Your task to perform on an android device: turn off notifications settings in the gmail app Image 0: 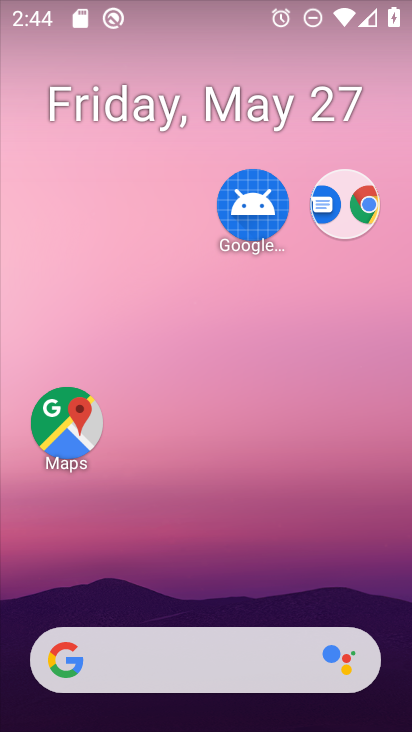
Step 0: drag from (206, 536) to (284, 63)
Your task to perform on an android device: turn off notifications settings in the gmail app Image 1: 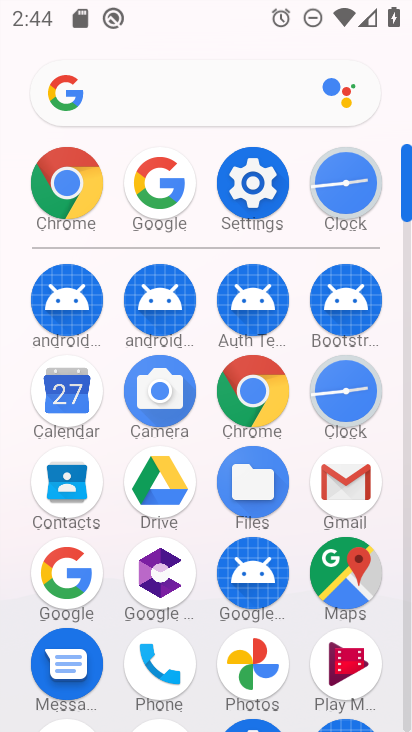
Step 1: click (362, 506)
Your task to perform on an android device: turn off notifications settings in the gmail app Image 2: 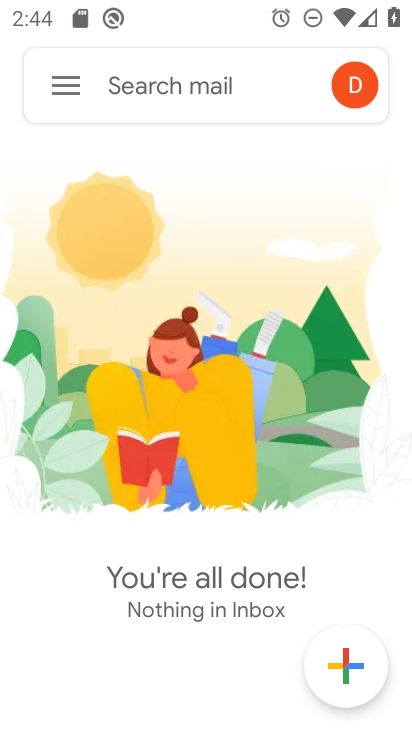
Step 2: click (56, 85)
Your task to perform on an android device: turn off notifications settings in the gmail app Image 3: 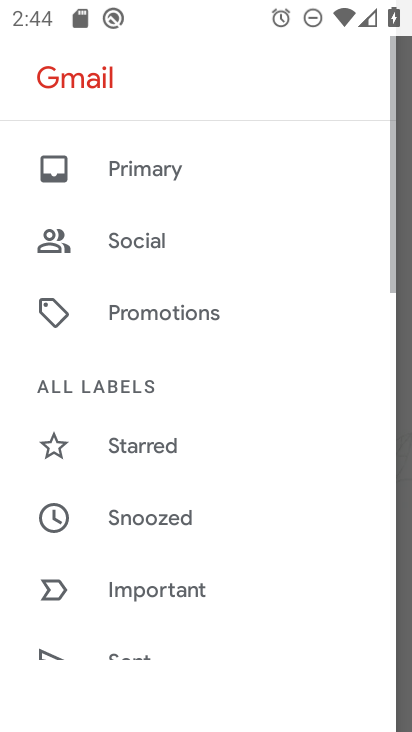
Step 3: drag from (137, 601) to (185, 246)
Your task to perform on an android device: turn off notifications settings in the gmail app Image 4: 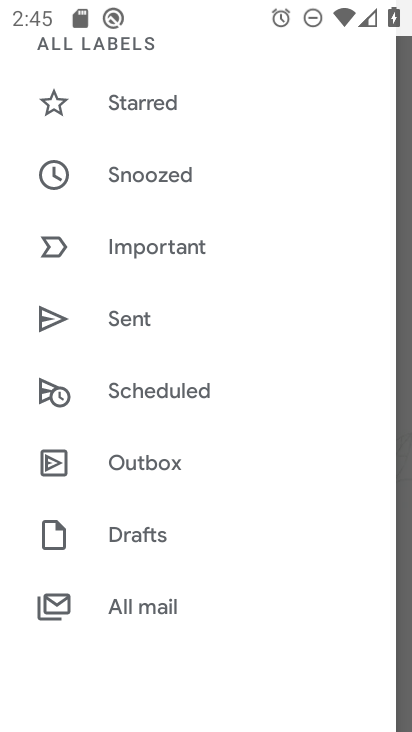
Step 4: drag from (199, 576) to (259, 133)
Your task to perform on an android device: turn off notifications settings in the gmail app Image 5: 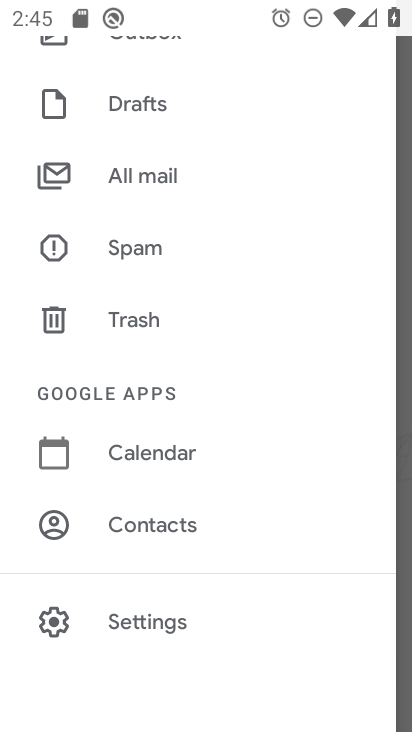
Step 5: click (157, 627)
Your task to perform on an android device: turn off notifications settings in the gmail app Image 6: 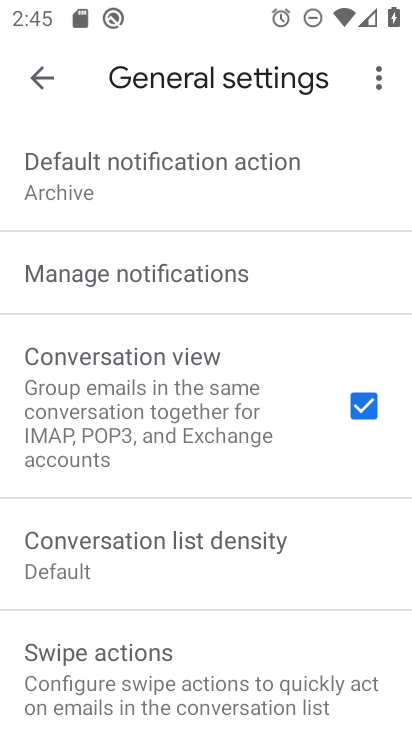
Step 6: click (201, 262)
Your task to perform on an android device: turn off notifications settings in the gmail app Image 7: 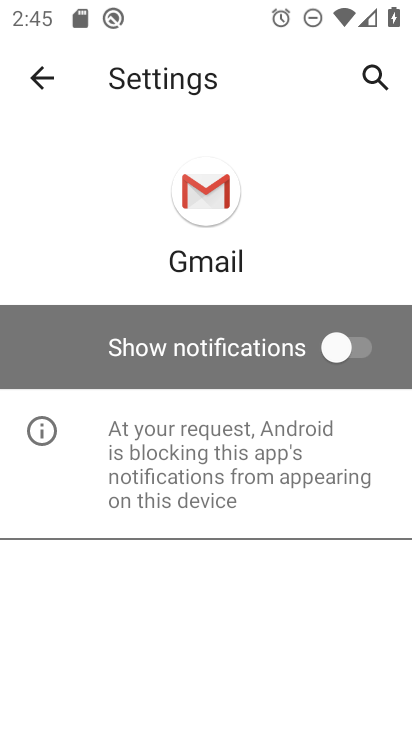
Step 7: task complete